Your task to perform on an android device: turn on showing notifications on the lock screen Image 0: 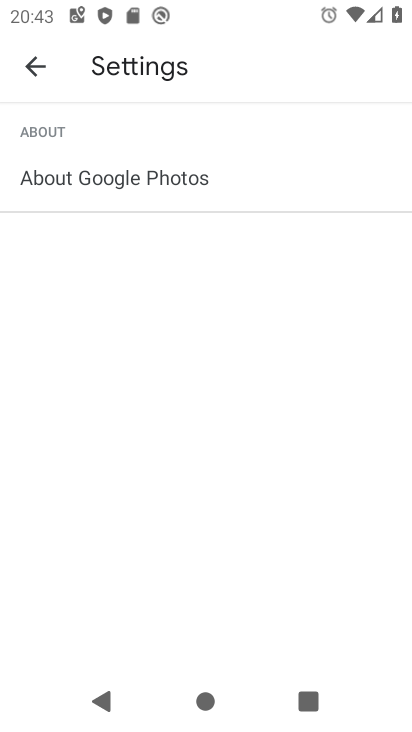
Step 0: press home button
Your task to perform on an android device: turn on showing notifications on the lock screen Image 1: 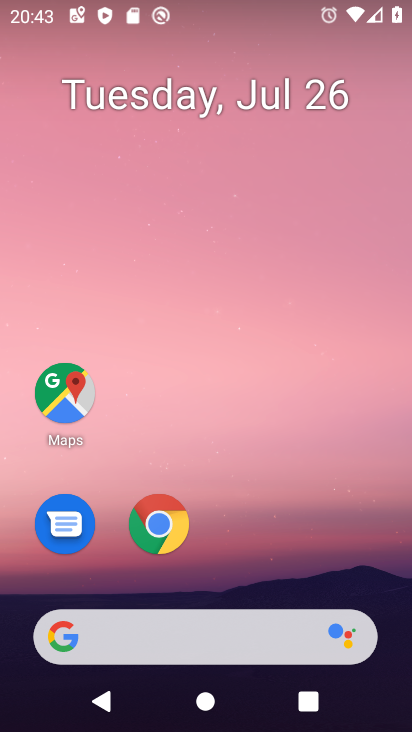
Step 1: drag from (287, 542) to (280, 28)
Your task to perform on an android device: turn on showing notifications on the lock screen Image 2: 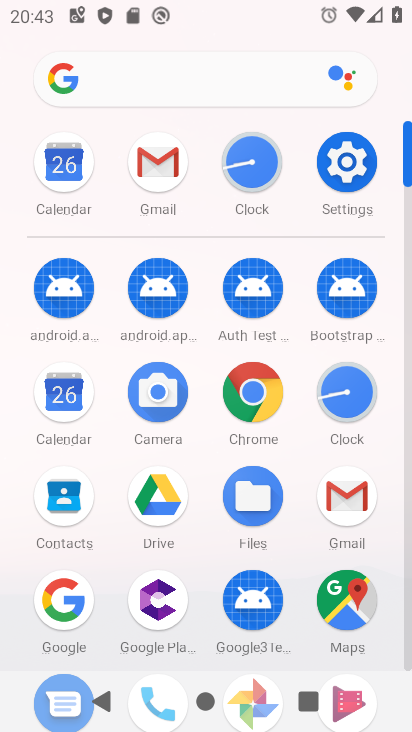
Step 2: click (343, 162)
Your task to perform on an android device: turn on showing notifications on the lock screen Image 3: 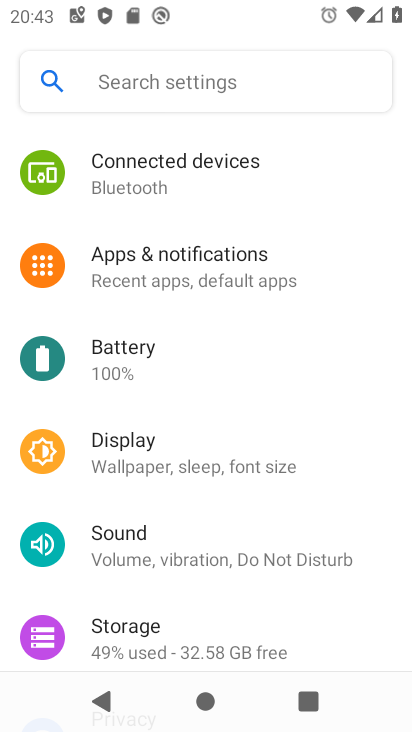
Step 3: click (272, 262)
Your task to perform on an android device: turn on showing notifications on the lock screen Image 4: 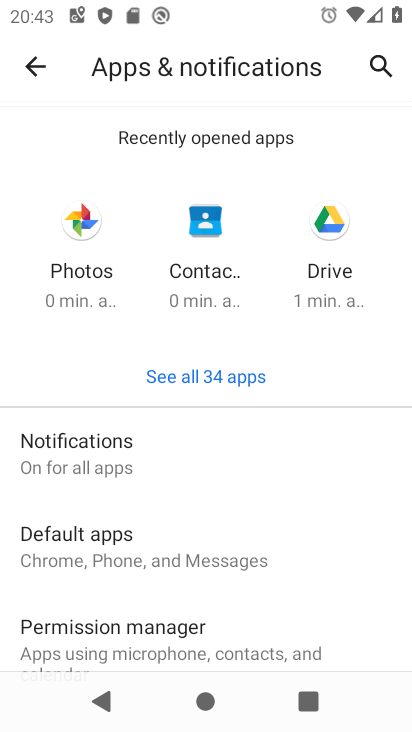
Step 4: click (107, 445)
Your task to perform on an android device: turn on showing notifications on the lock screen Image 5: 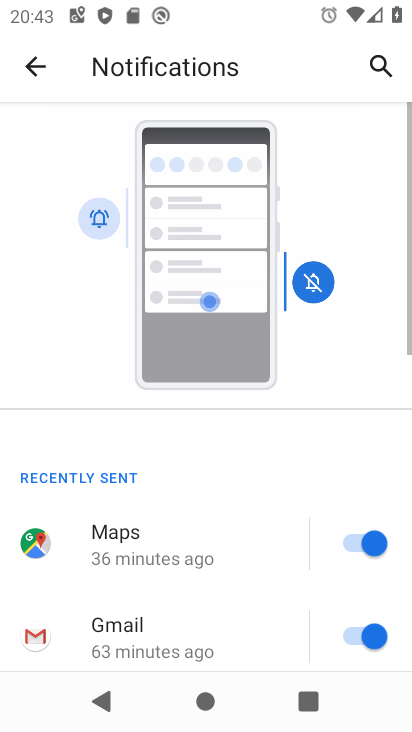
Step 5: drag from (223, 461) to (266, 34)
Your task to perform on an android device: turn on showing notifications on the lock screen Image 6: 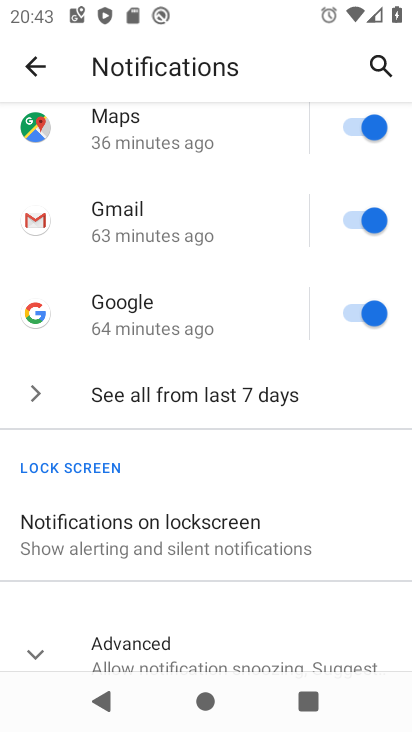
Step 6: click (231, 528)
Your task to perform on an android device: turn on showing notifications on the lock screen Image 7: 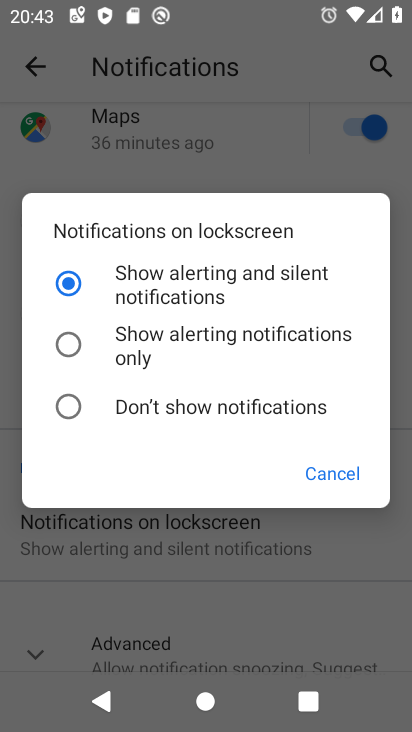
Step 7: click (228, 282)
Your task to perform on an android device: turn on showing notifications on the lock screen Image 8: 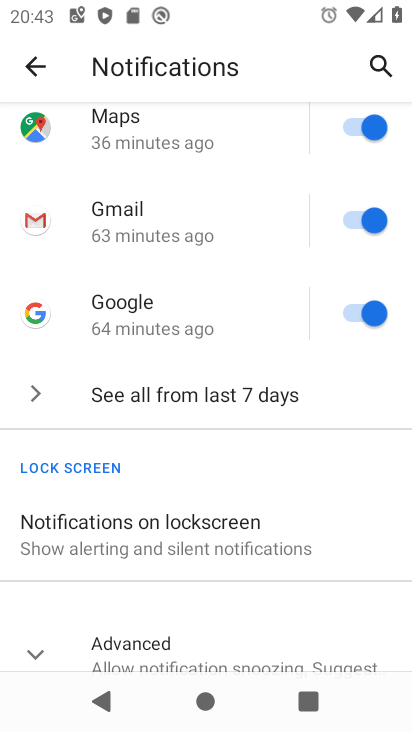
Step 8: task complete